Your task to perform on an android device: Check the weather Image 0: 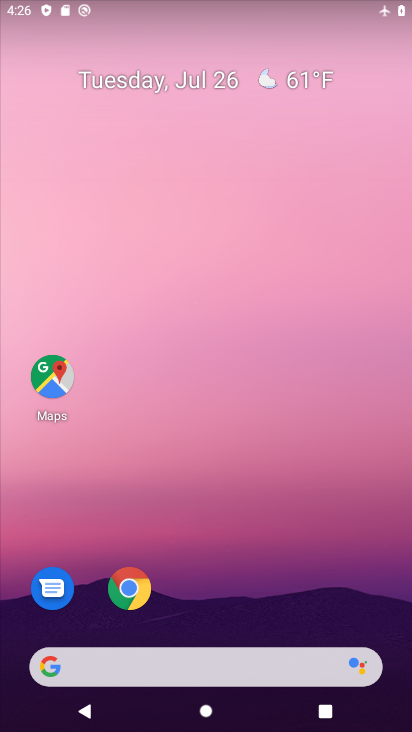
Step 0: drag from (250, 580) to (214, 13)
Your task to perform on an android device: Check the weather Image 1: 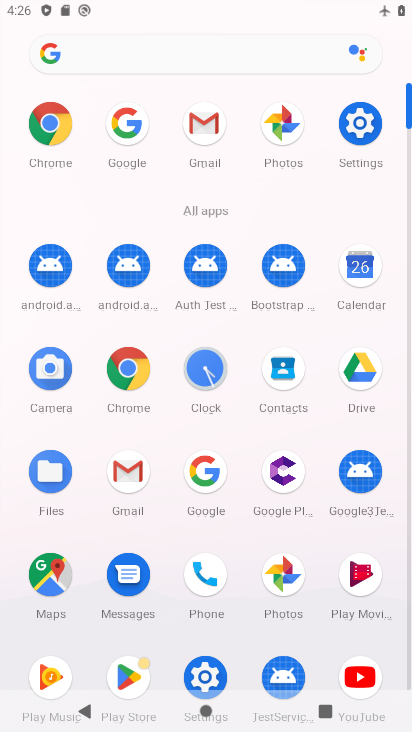
Step 1: click (212, 484)
Your task to perform on an android device: Check the weather Image 2: 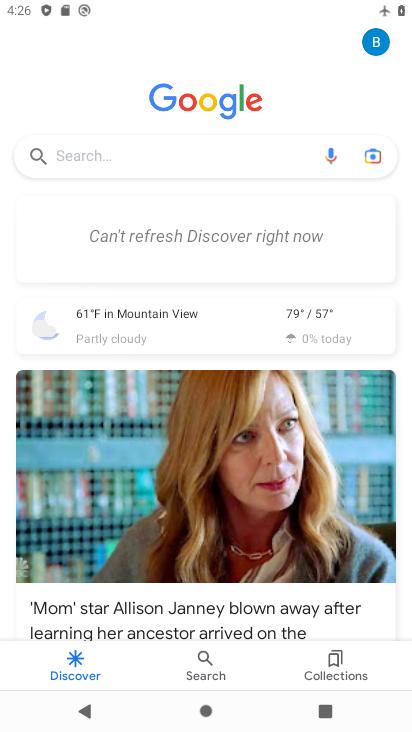
Step 2: click (185, 324)
Your task to perform on an android device: Check the weather Image 3: 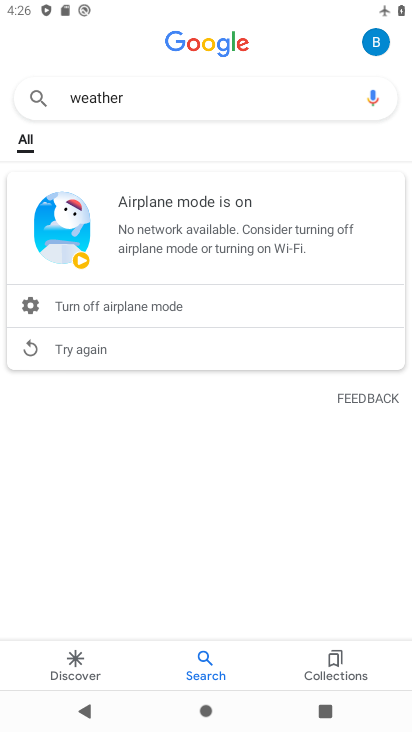
Step 3: task complete